Your task to perform on an android device: choose inbox layout in the gmail app Image 0: 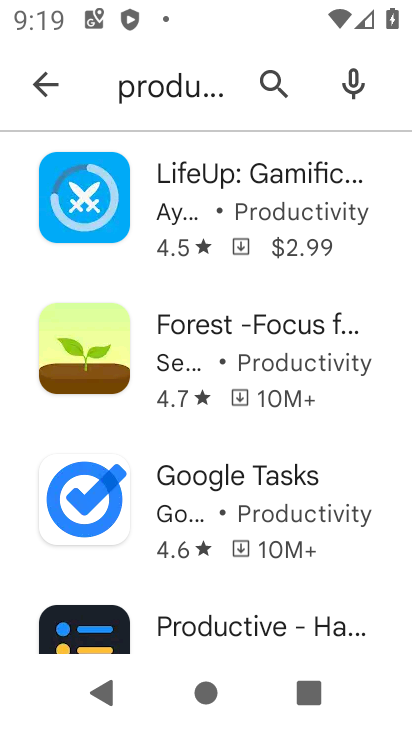
Step 0: press home button
Your task to perform on an android device: choose inbox layout in the gmail app Image 1: 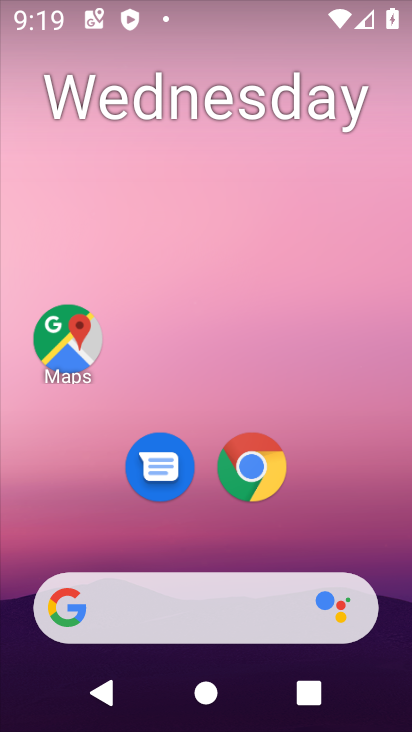
Step 1: drag from (296, 547) to (241, 66)
Your task to perform on an android device: choose inbox layout in the gmail app Image 2: 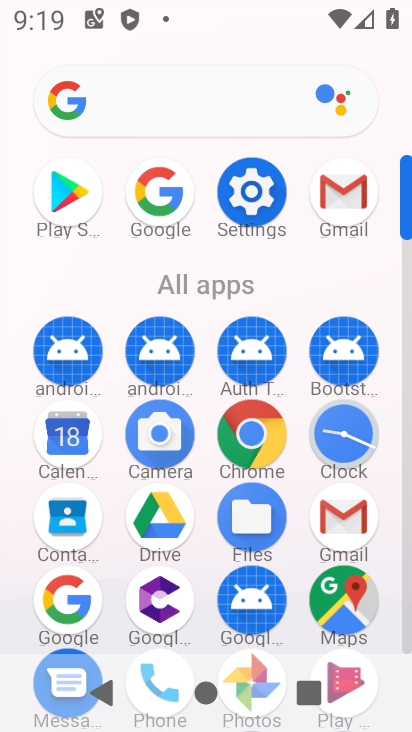
Step 2: click (331, 514)
Your task to perform on an android device: choose inbox layout in the gmail app Image 3: 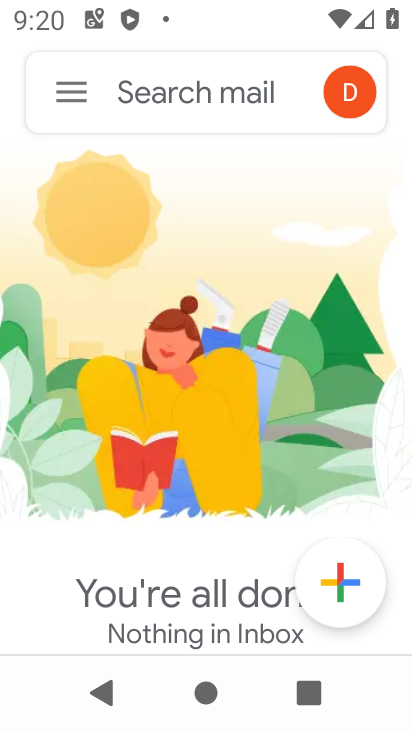
Step 3: click (73, 95)
Your task to perform on an android device: choose inbox layout in the gmail app Image 4: 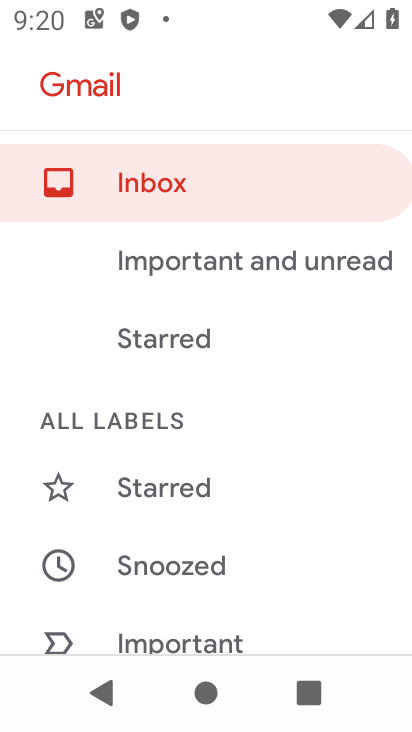
Step 4: drag from (193, 556) to (196, 166)
Your task to perform on an android device: choose inbox layout in the gmail app Image 5: 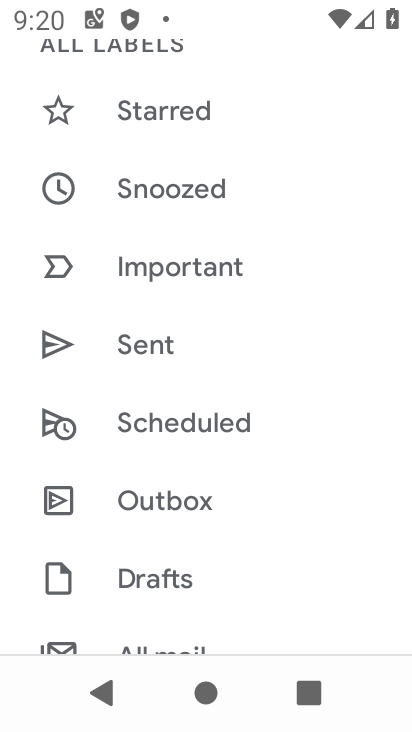
Step 5: drag from (255, 556) to (231, 74)
Your task to perform on an android device: choose inbox layout in the gmail app Image 6: 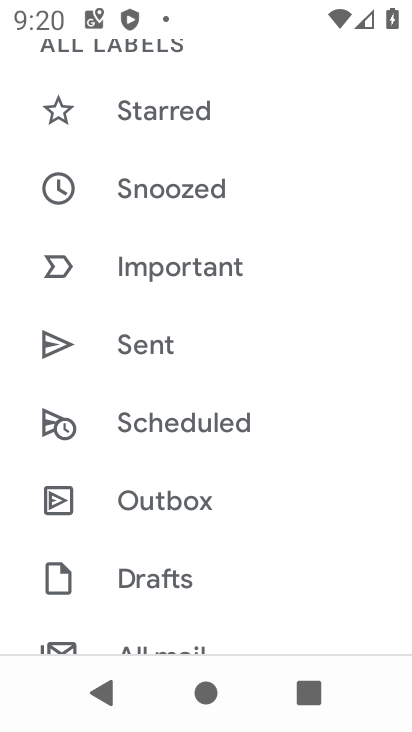
Step 6: drag from (216, 546) to (180, 130)
Your task to perform on an android device: choose inbox layout in the gmail app Image 7: 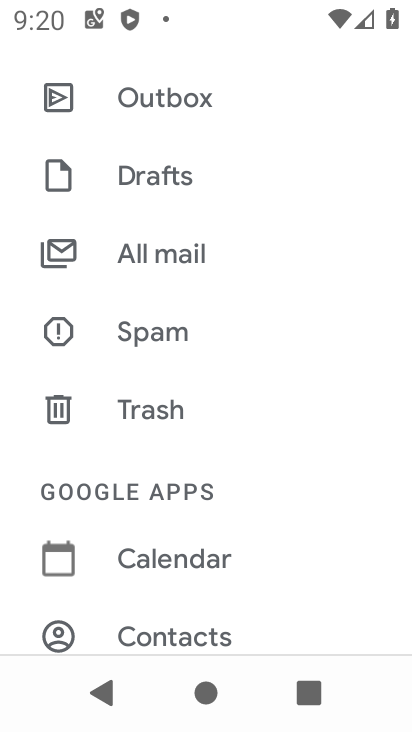
Step 7: drag from (193, 535) to (205, 169)
Your task to perform on an android device: choose inbox layout in the gmail app Image 8: 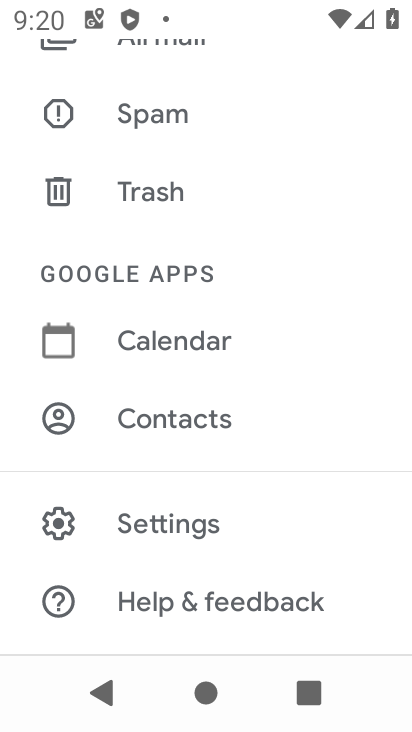
Step 8: click (170, 527)
Your task to perform on an android device: choose inbox layout in the gmail app Image 9: 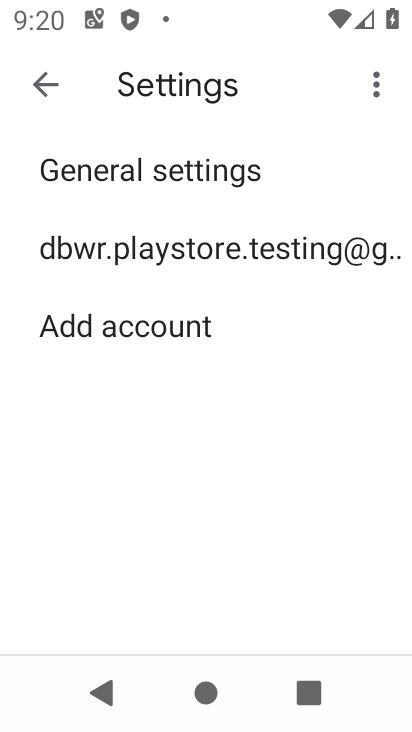
Step 9: click (146, 259)
Your task to perform on an android device: choose inbox layout in the gmail app Image 10: 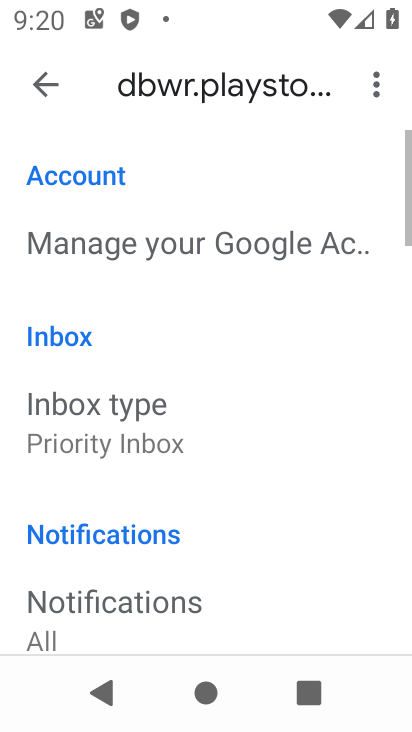
Step 10: click (143, 417)
Your task to perform on an android device: choose inbox layout in the gmail app Image 11: 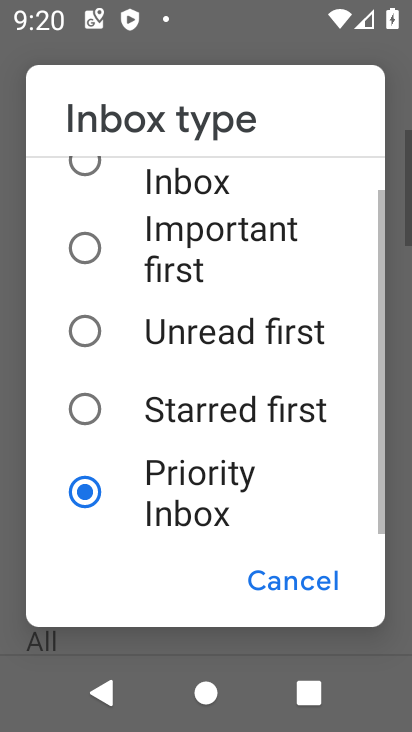
Step 11: click (161, 257)
Your task to perform on an android device: choose inbox layout in the gmail app Image 12: 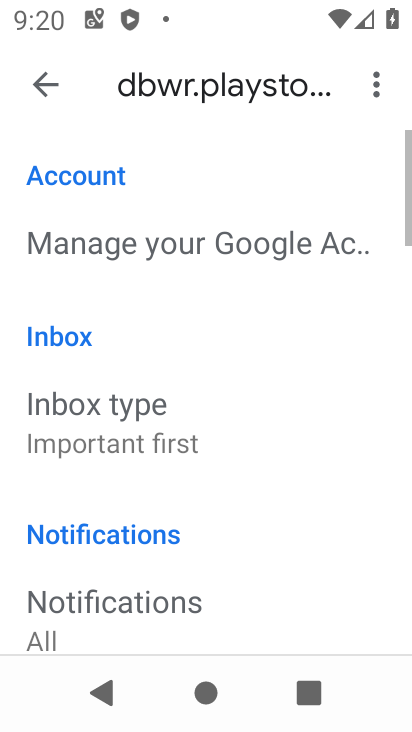
Step 12: task complete